Your task to perform on an android device: Open Google Maps Image 0: 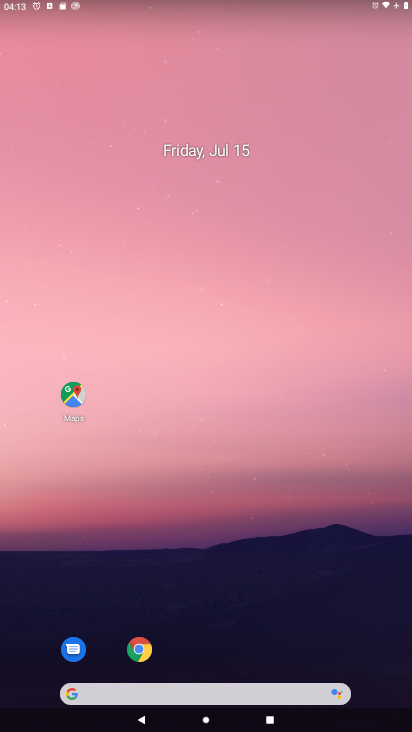
Step 0: click (73, 392)
Your task to perform on an android device: Open Google Maps Image 1: 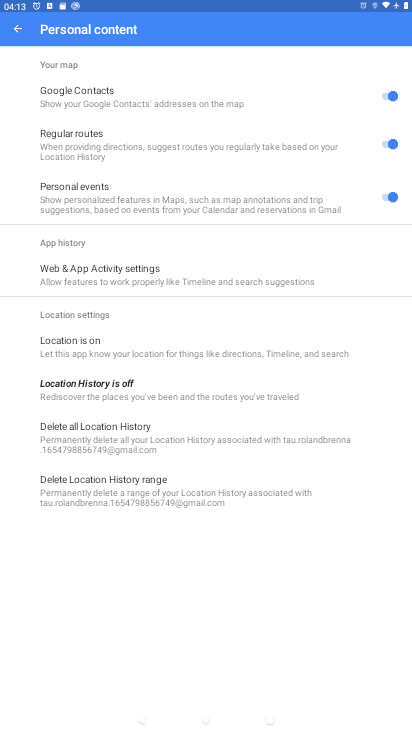
Step 1: task complete